Your task to perform on an android device: change the clock display to show seconds Image 0: 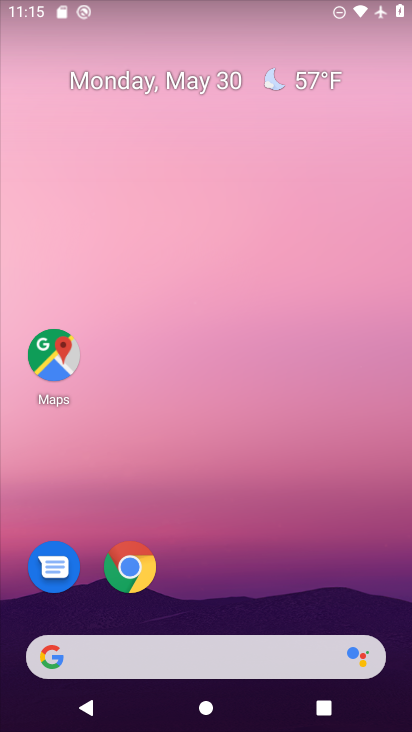
Step 0: drag from (177, 587) to (166, 151)
Your task to perform on an android device: change the clock display to show seconds Image 1: 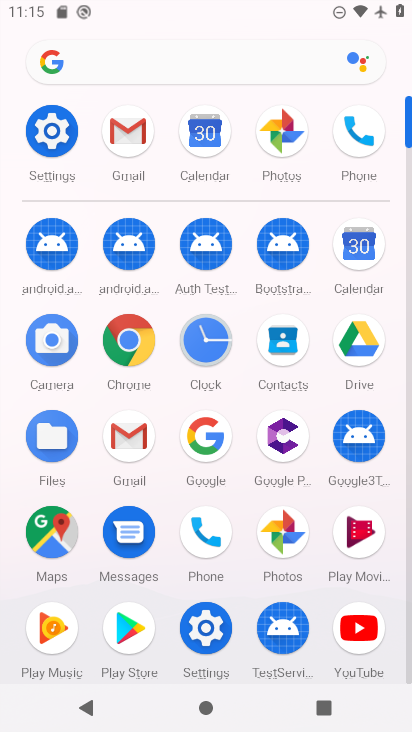
Step 1: click (202, 338)
Your task to perform on an android device: change the clock display to show seconds Image 2: 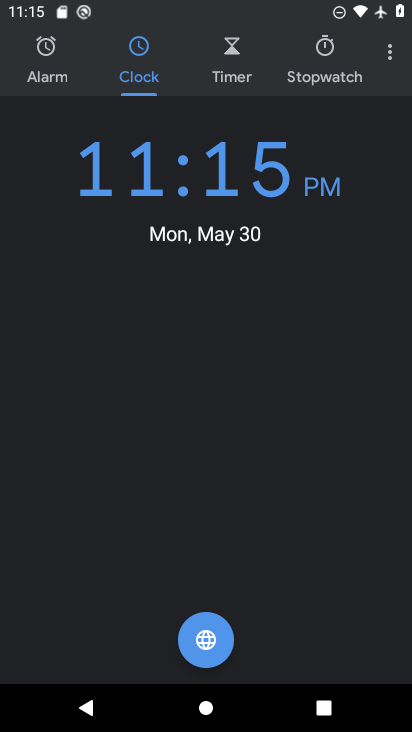
Step 2: click (390, 38)
Your task to perform on an android device: change the clock display to show seconds Image 3: 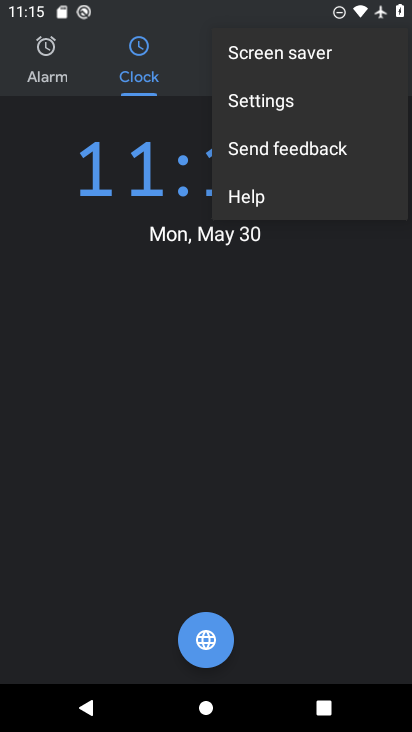
Step 3: click (265, 100)
Your task to perform on an android device: change the clock display to show seconds Image 4: 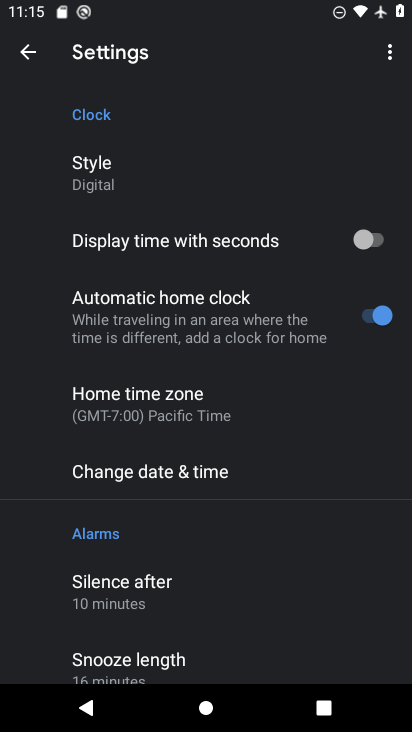
Step 4: click (366, 249)
Your task to perform on an android device: change the clock display to show seconds Image 5: 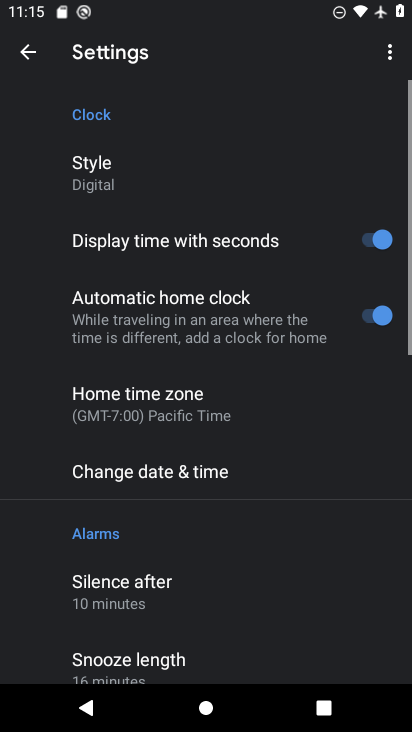
Step 5: task complete